Your task to perform on an android device: Open the stopwatch Image 0: 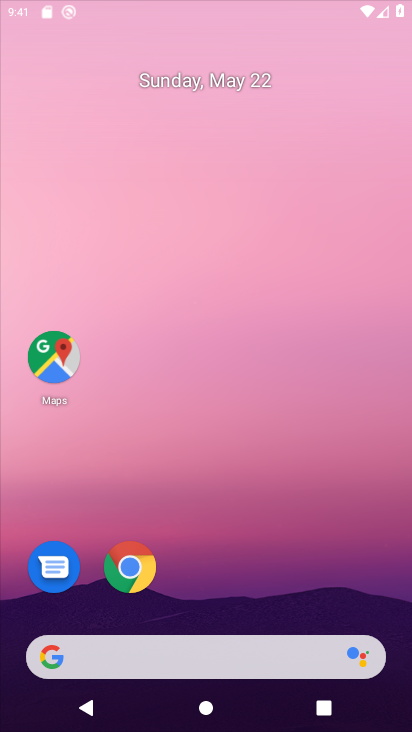
Step 0: press home button
Your task to perform on an android device: Open the stopwatch Image 1: 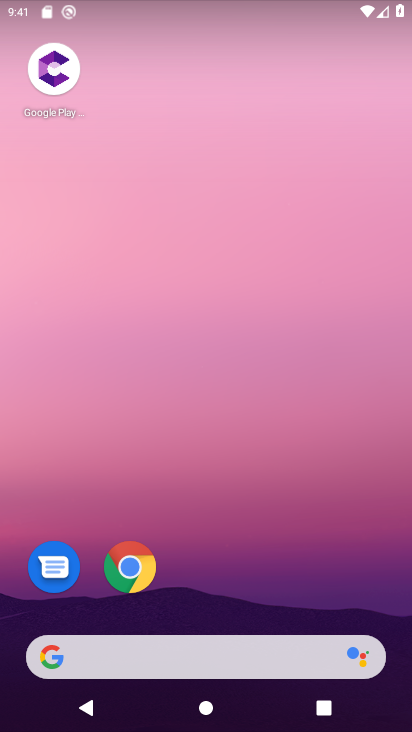
Step 1: drag from (213, 604) to (183, 102)
Your task to perform on an android device: Open the stopwatch Image 2: 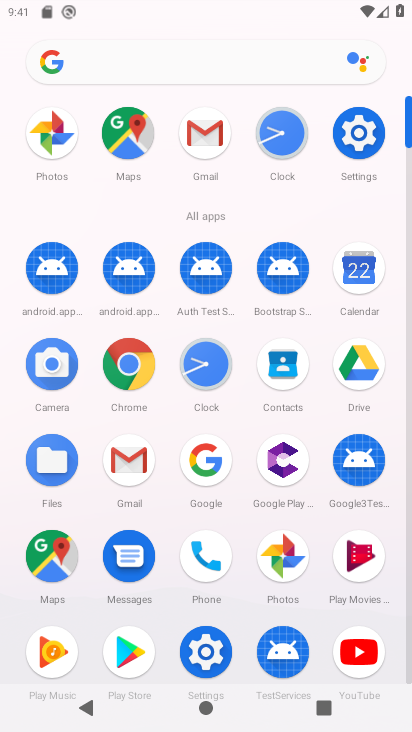
Step 2: click (287, 129)
Your task to perform on an android device: Open the stopwatch Image 3: 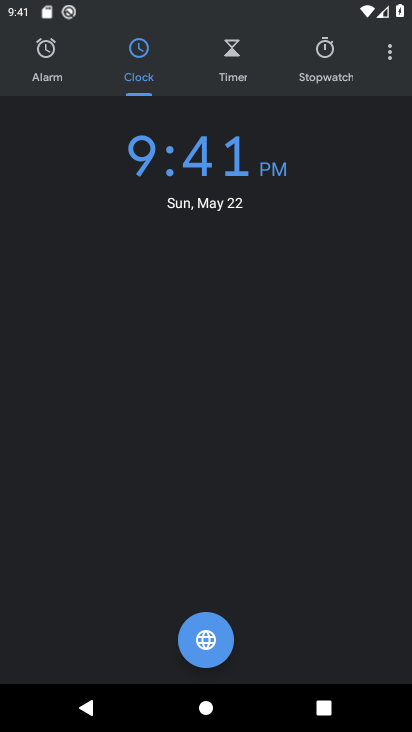
Step 3: click (322, 48)
Your task to perform on an android device: Open the stopwatch Image 4: 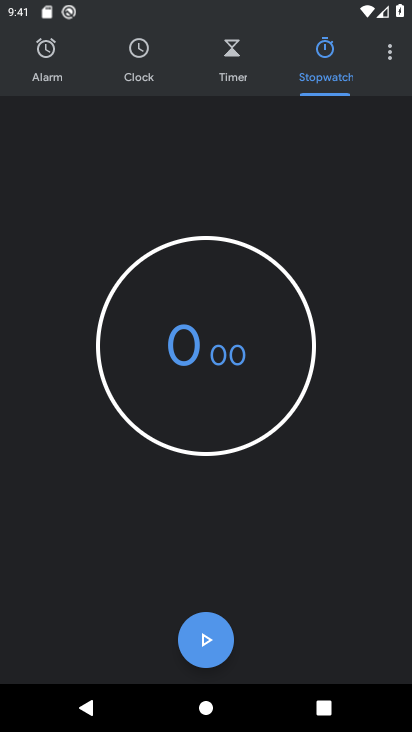
Step 4: click (199, 637)
Your task to perform on an android device: Open the stopwatch Image 5: 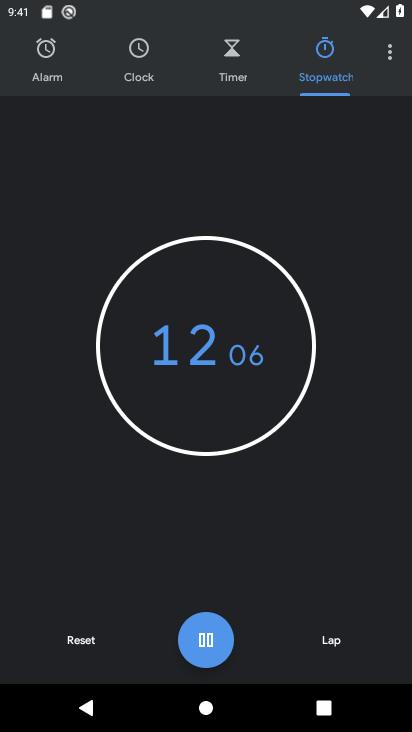
Step 5: task complete